Your task to perform on an android device: clear history in the chrome app Image 0: 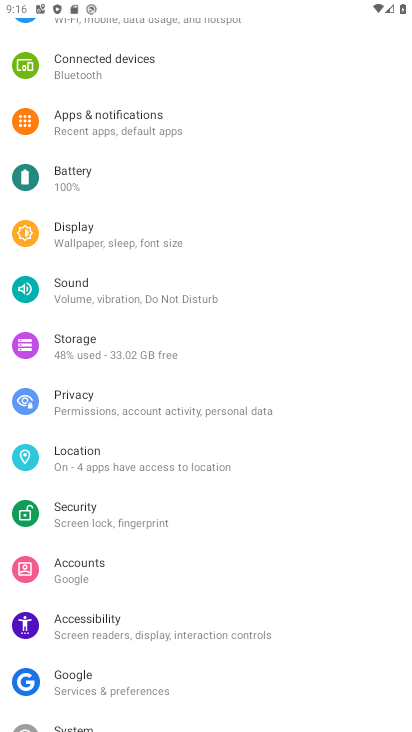
Step 0: press home button
Your task to perform on an android device: clear history in the chrome app Image 1: 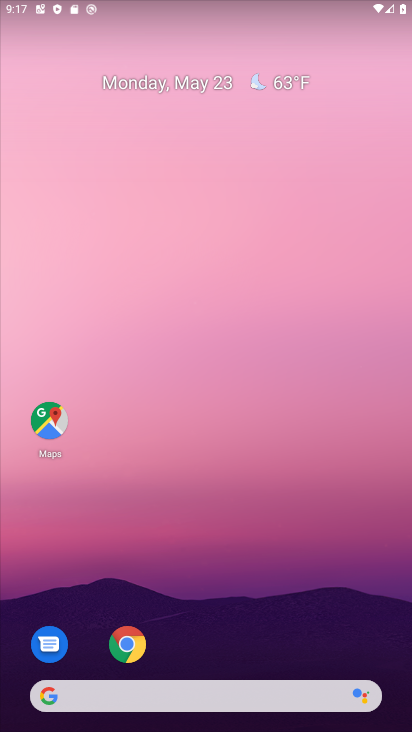
Step 1: click (122, 637)
Your task to perform on an android device: clear history in the chrome app Image 2: 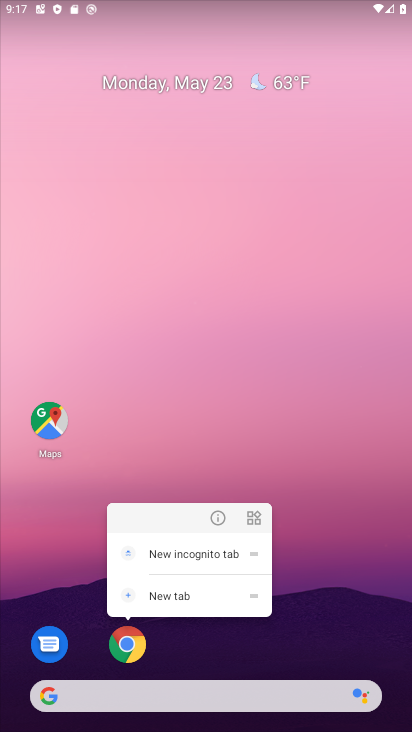
Step 2: click (128, 641)
Your task to perform on an android device: clear history in the chrome app Image 3: 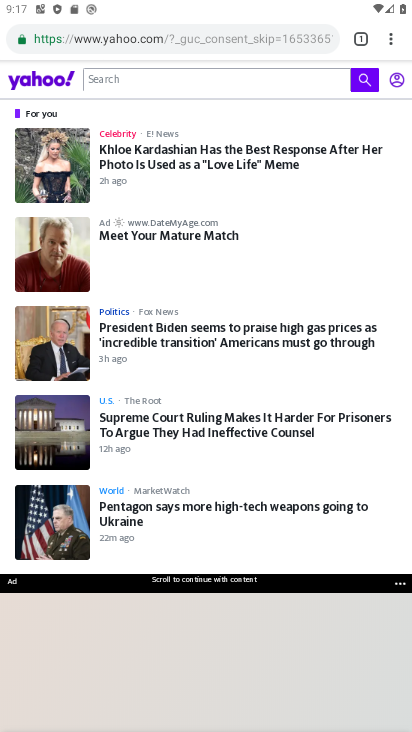
Step 3: click (387, 37)
Your task to perform on an android device: clear history in the chrome app Image 4: 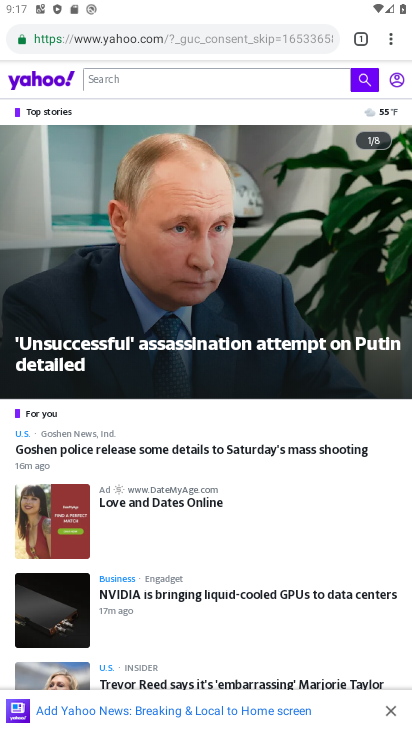
Step 4: click (390, 43)
Your task to perform on an android device: clear history in the chrome app Image 5: 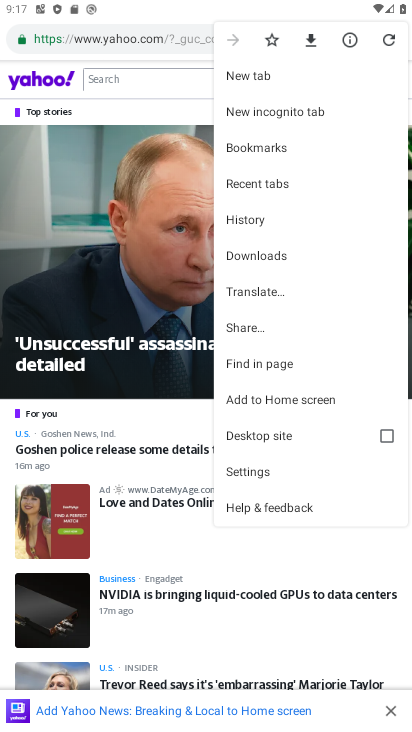
Step 5: click (270, 215)
Your task to perform on an android device: clear history in the chrome app Image 6: 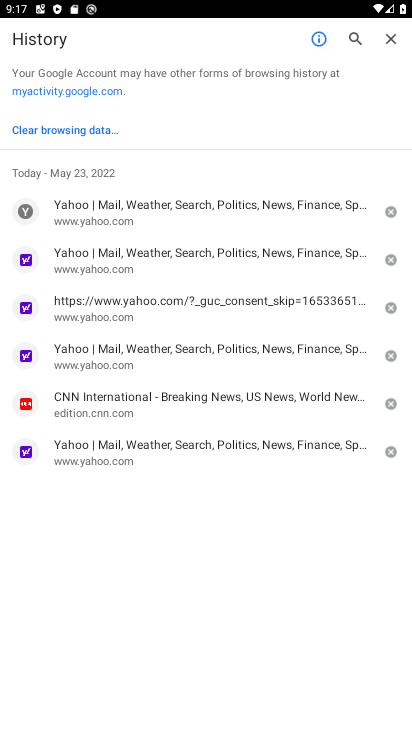
Step 6: click (49, 130)
Your task to perform on an android device: clear history in the chrome app Image 7: 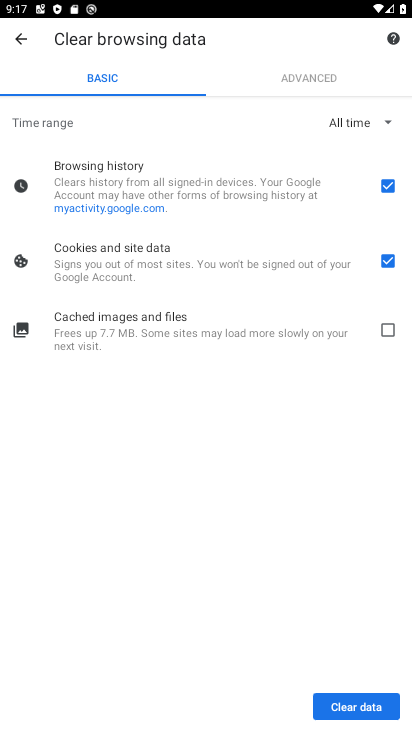
Step 7: click (388, 326)
Your task to perform on an android device: clear history in the chrome app Image 8: 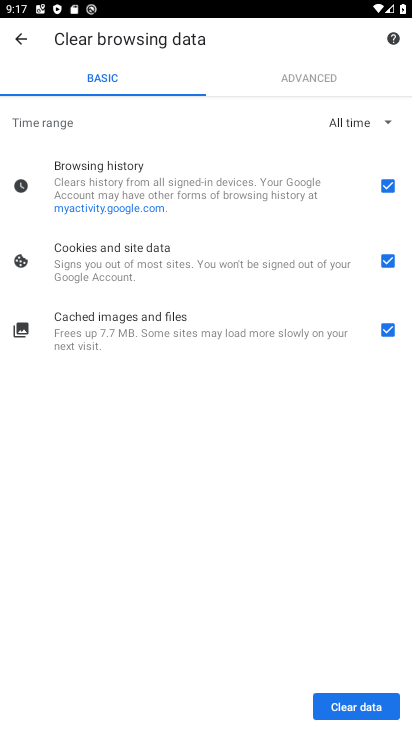
Step 8: click (362, 710)
Your task to perform on an android device: clear history in the chrome app Image 9: 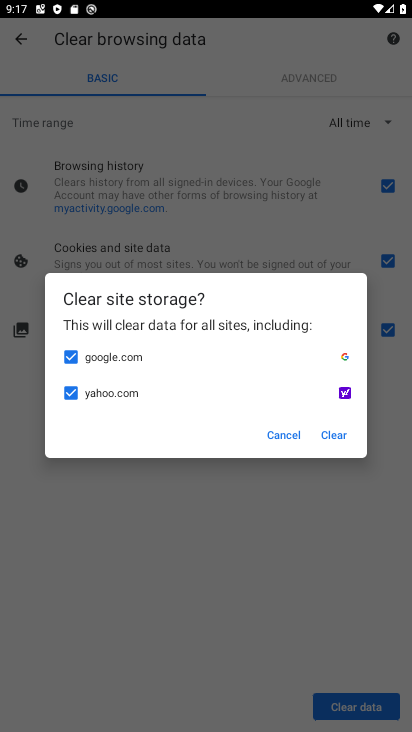
Step 9: click (334, 438)
Your task to perform on an android device: clear history in the chrome app Image 10: 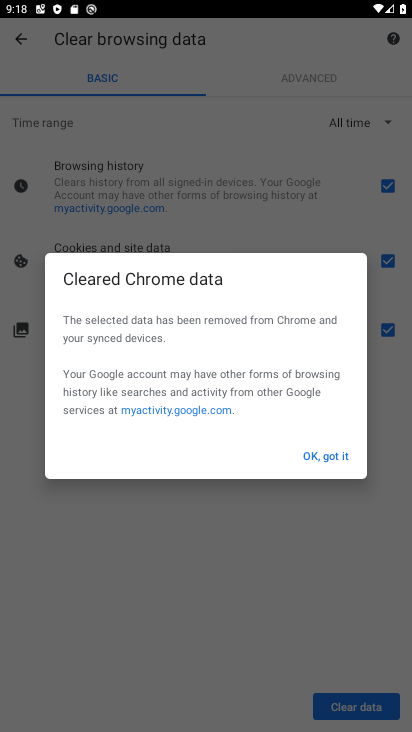
Step 10: click (338, 452)
Your task to perform on an android device: clear history in the chrome app Image 11: 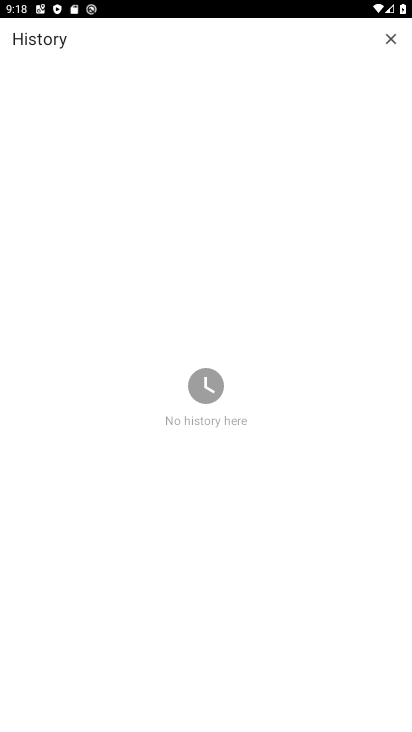
Step 11: task complete